Your task to perform on an android device: Go to Reddit.com Image 0: 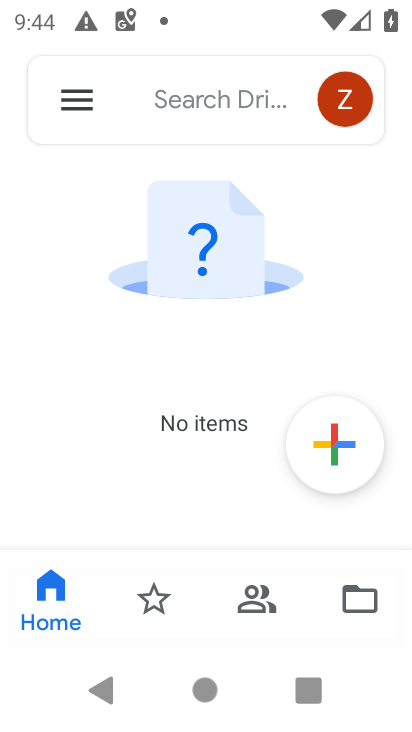
Step 0: press home button
Your task to perform on an android device: Go to Reddit.com Image 1: 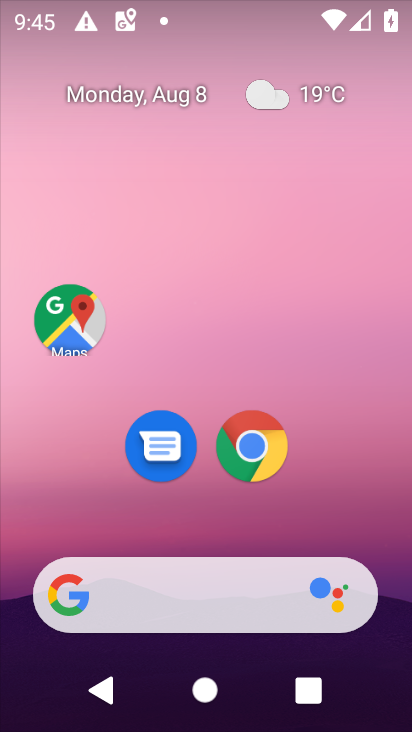
Step 1: click (260, 450)
Your task to perform on an android device: Go to Reddit.com Image 2: 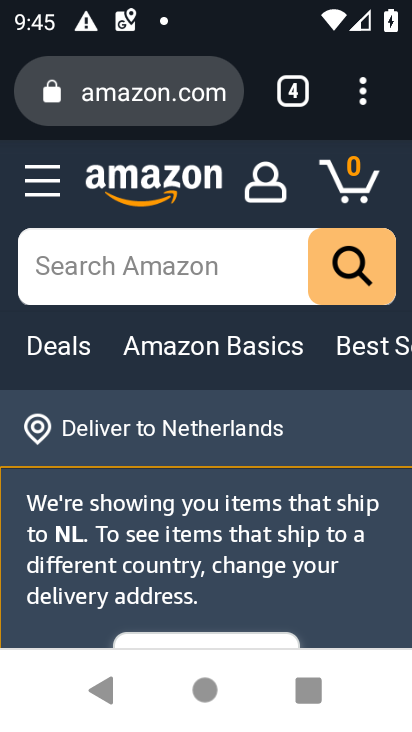
Step 2: click (215, 66)
Your task to perform on an android device: Go to Reddit.com Image 3: 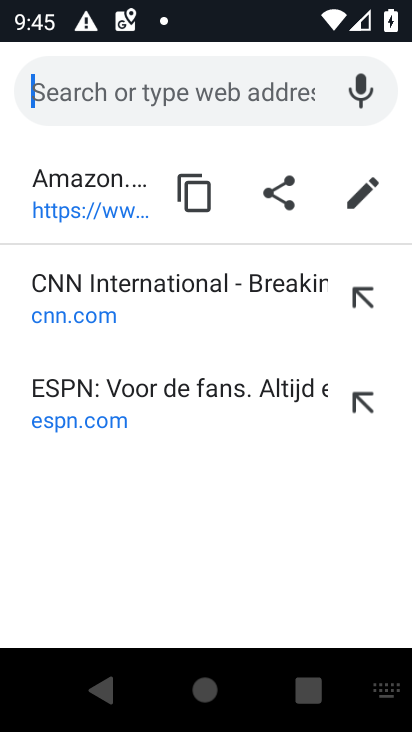
Step 3: type "reddit.com"
Your task to perform on an android device: Go to Reddit.com Image 4: 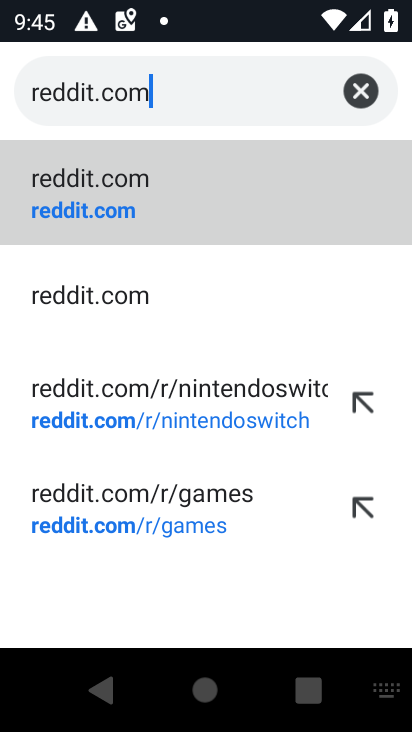
Step 4: click (79, 181)
Your task to perform on an android device: Go to Reddit.com Image 5: 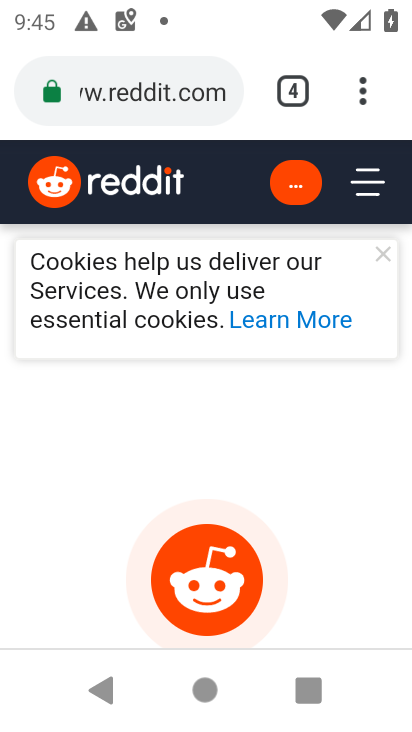
Step 5: task complete